Your task to perform on an android device: Open network settings Image 0: 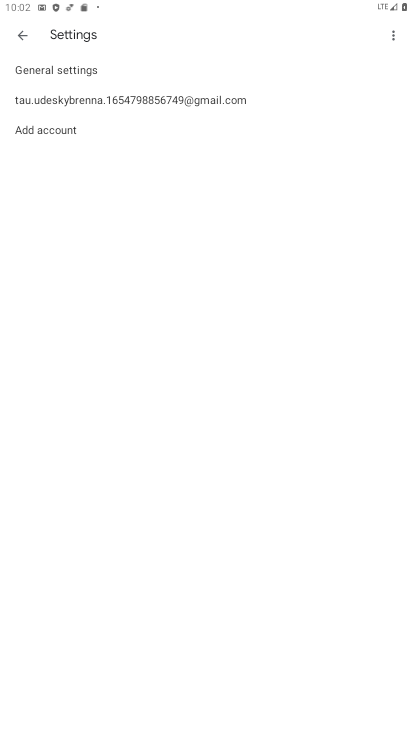
Step 0: press home button
Your task to perform on an android device: Open network settings Image 1: 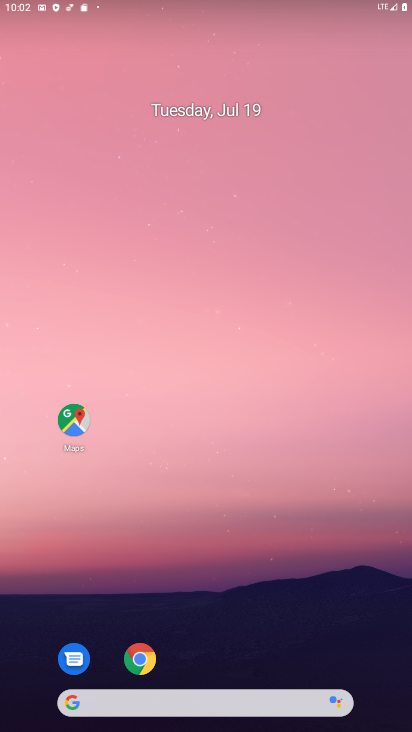
Step 1: drag from (260, 464) to (272, 180)
Your task to perform on an android device: Open network settings Image 2: 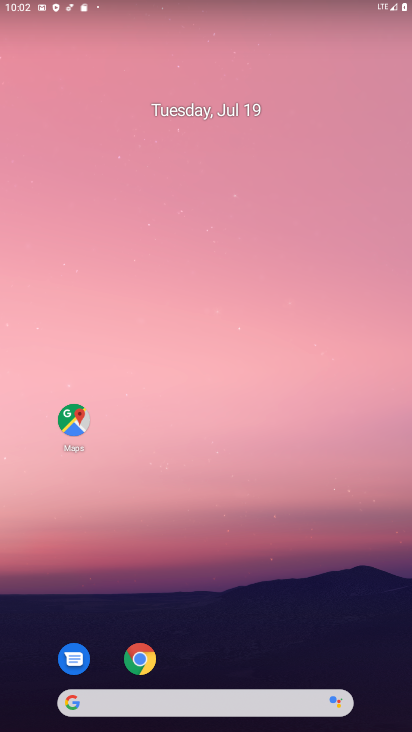
Step 2: drag from (228, 615) to (232, 145)
Your task to perform on an android device: Open network settings Image 3: 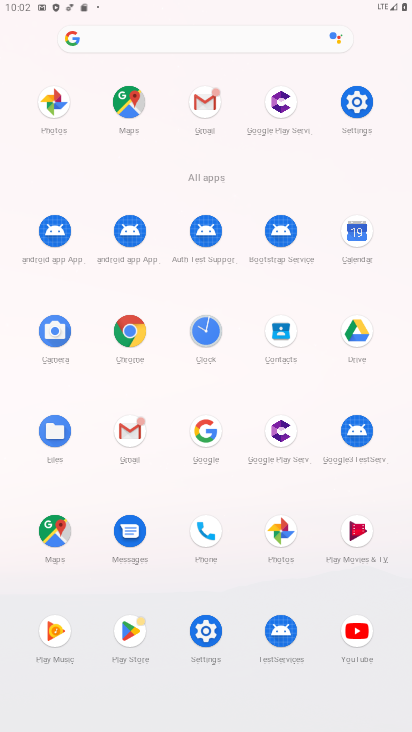
Step 3: click (203, 629)
Your task to perform on an android device: Open network settings Image 4: 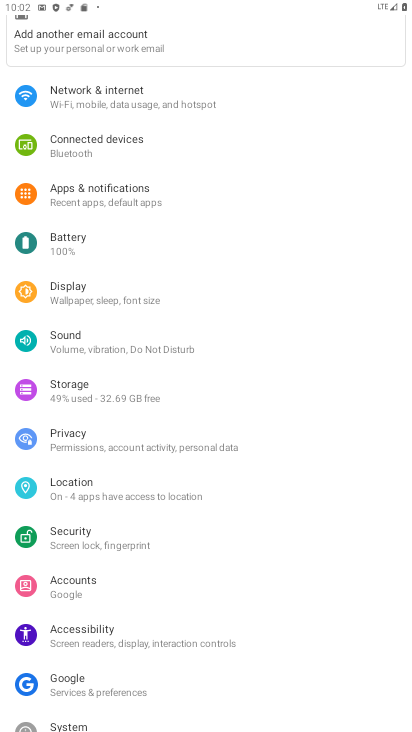
Step 4: click (111, 90)
Your task to perform on an android device: Open network settings Image 5: 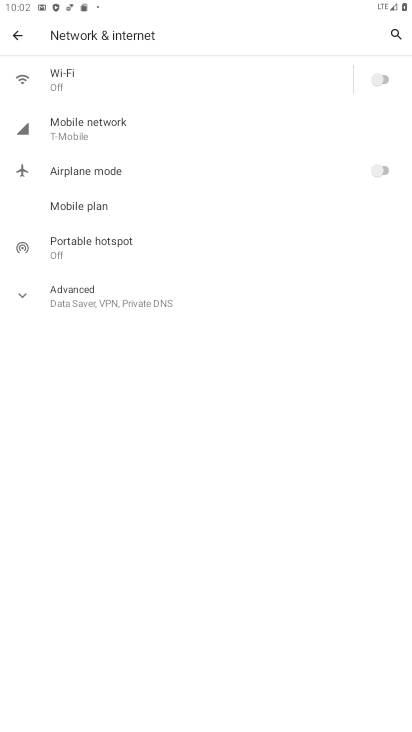
Step 5: task complete